Your task to perform on an android device: Open privacy settings Image 0: 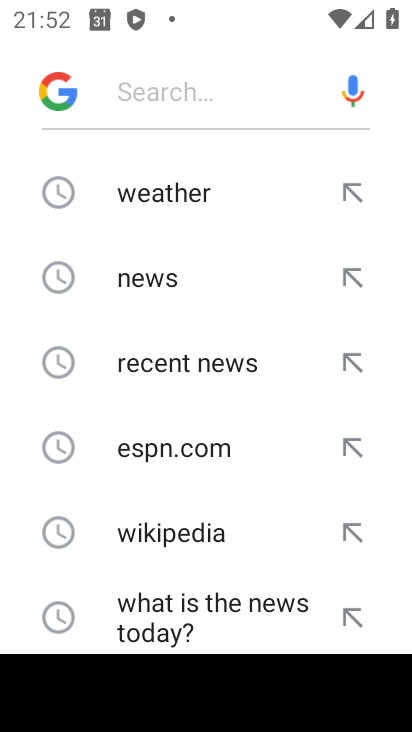
Step 0: press home button
Your task to perform on an android device: Open privacy settings Image 1: 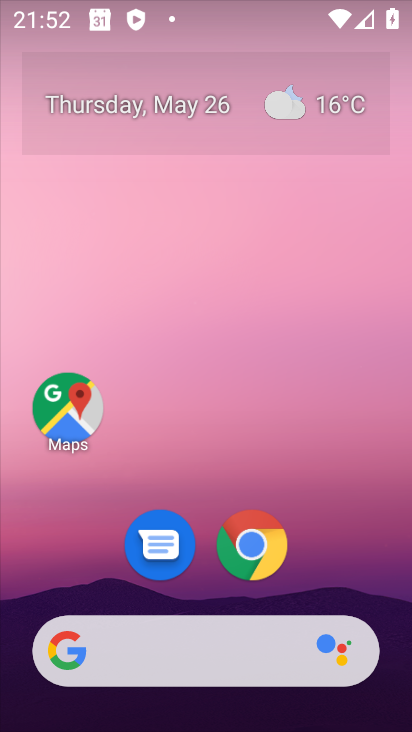
Step 1: click (246, 545)
Your task to perform on an android device: Open privacy settings Image 2: 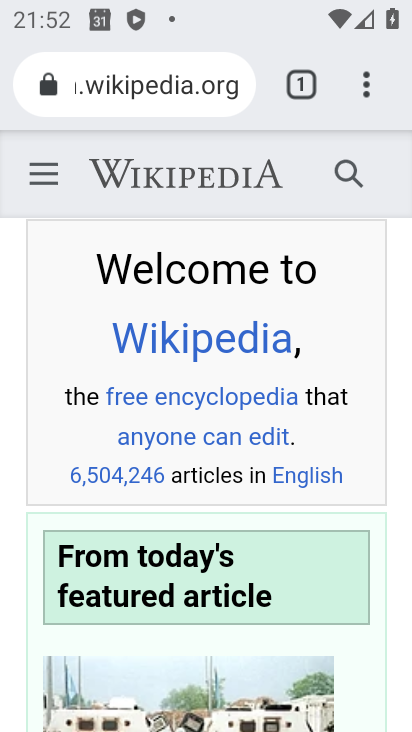
Step 2: click (355, 93)
Your task to perform on an android device: Open privacy settings Image 3: 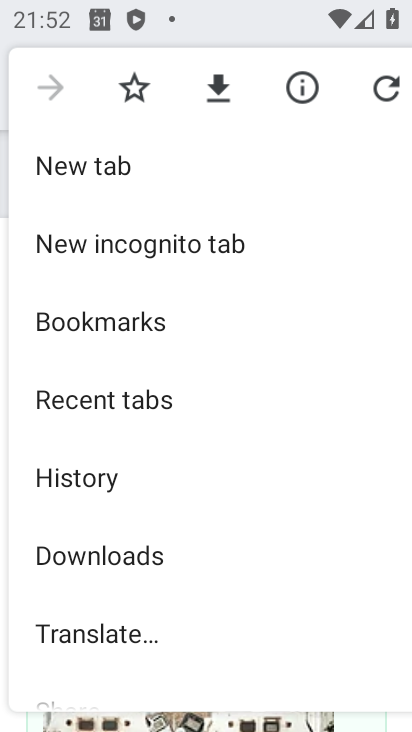
Step 3: drag from (210, 611) to (167, 151)
Your task to perform on an android device: Open privacy settings Image 4: 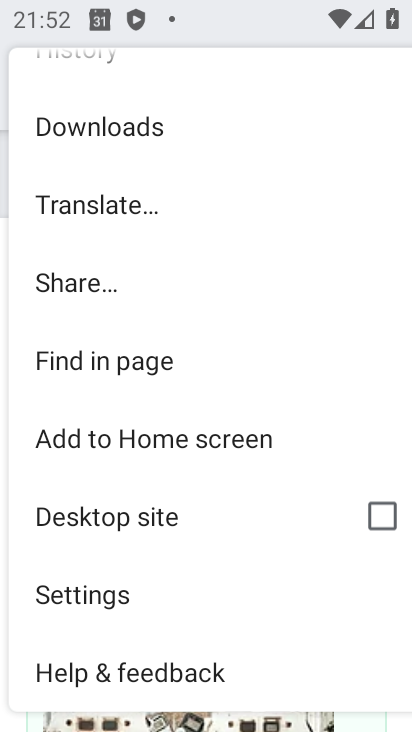
Step 4: click (114, 600)
Your task to perform on an android device: Open privacy settings Image 5: 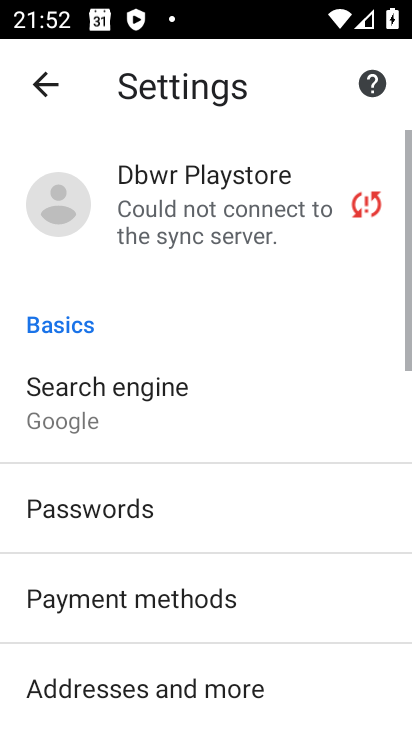
Step 5: drag from (255, 643) to (308, 125)
Your task to perform on an android device: Open privacy settings Image 6: 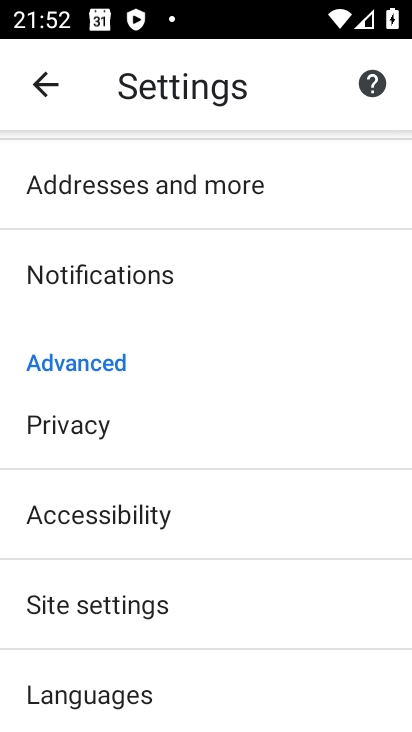
Step 6: click (108, 438)
Your task to perform on an android device: Open privacy settings Image 7: 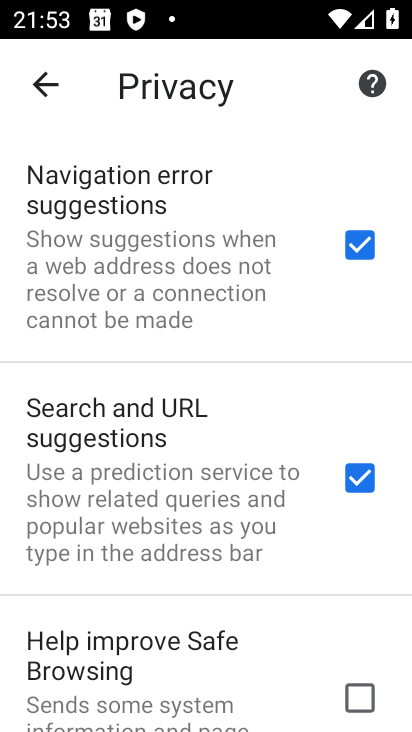
Step 7: task complete